Your task to perform on an android device: manage bookmarks in the chrome app Image 0: 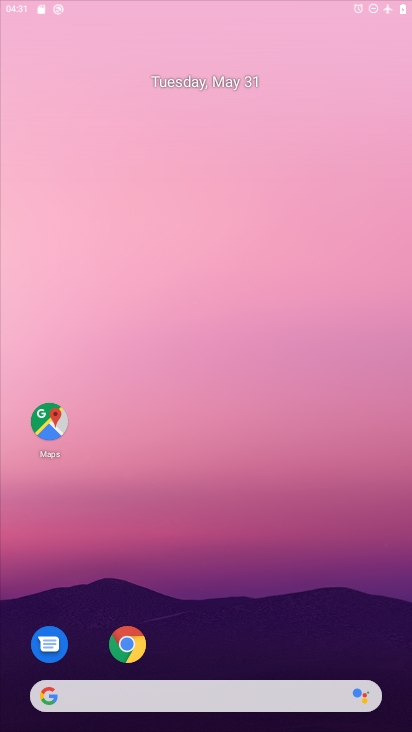
Step 0: drag from (310, 608) to (261, 176)
Your task to perform on an android device: manage bookmarks in the chrome app Image 1: 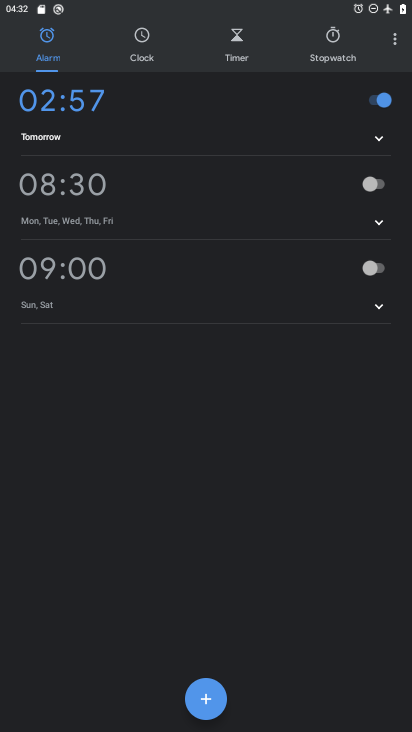
Step 1: press home button
Your task to perform on an android device: manage bookmarks in the chrome app Image 2: 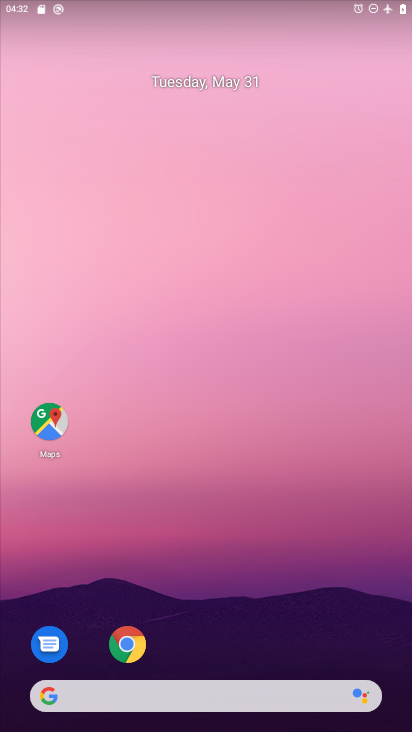
Step 2: click (125, 644)
Your task to perform on an android device: manage bookmarks in the chrome app Image 3: 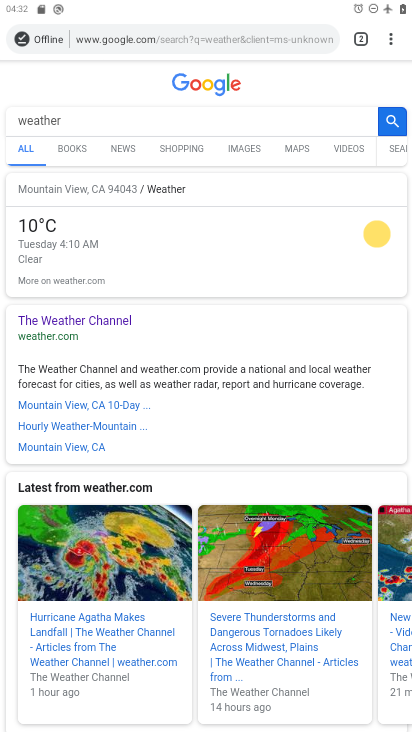
Step 3: click (397, 43)
Your task to perform on an android device: manage bookmarks in the chrome app Image 4: 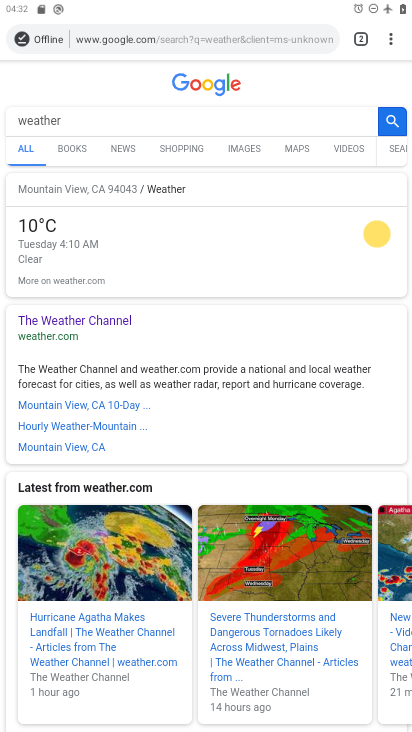
Step 4: drag from (389, 41) to (280, 154)
Your task to perform on an android device: manage bookmarks in the chrome app Image 5: 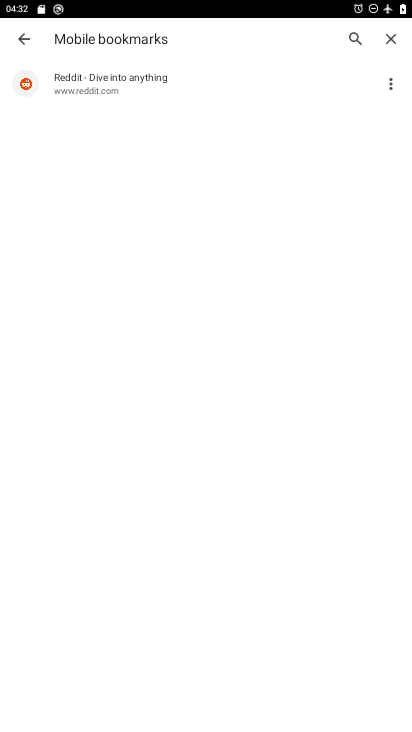
Step 5: drag from (385, 84) to (359, 108)
Your task to perform on an android device: manage bookmarks in the chrome app Image 6: 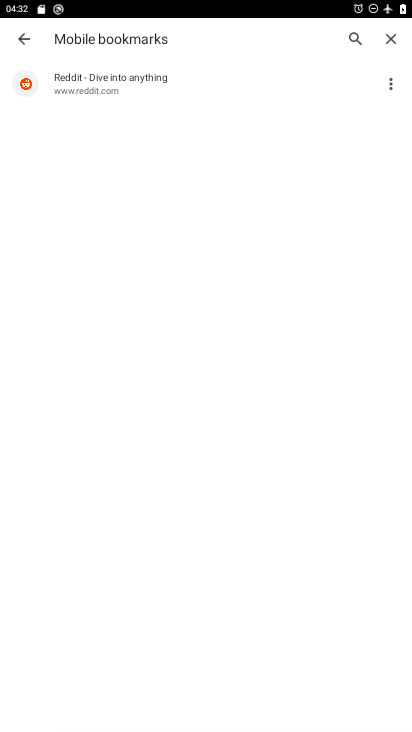
Step 6: click (387, 77)
Your task to perform on an android device: manage bookmarks in the chrome app Image 7: 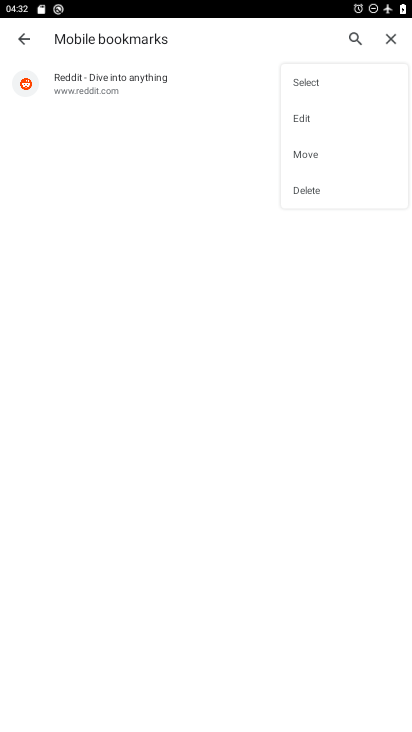
Step 7: click (308, 192)
Your task to perform on an android device: manage bookmarks in the chrome app Image 8: 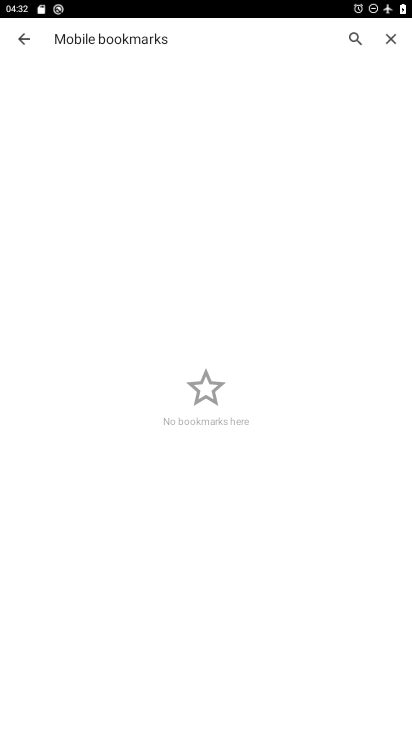
Step 8: task complete